Your task to perform on an android device: turn notification dots on Image 0: 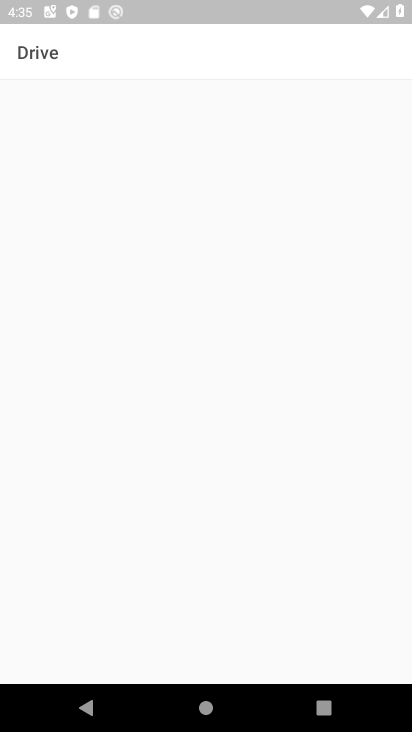
Step 0: drag from (260, 683) to (145, 101)
Your task to perform on an android device: turn notification dots on Image 1: 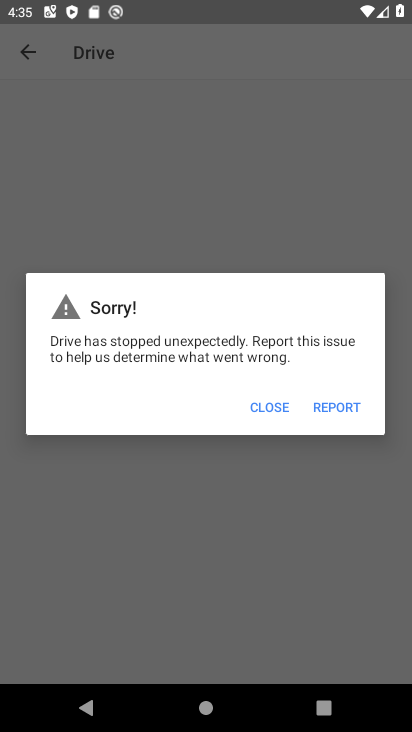
Step 1: click (286, 410)
Your task to perform on an android device: turn notification dots on Image 2: 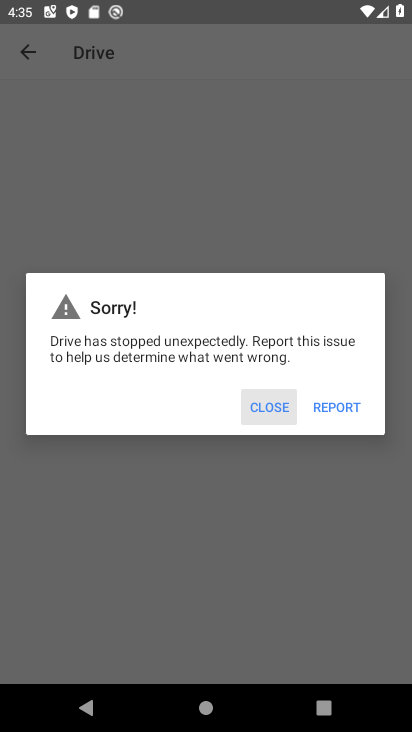
Step 2: click (263, 418)
Your task to perform on an android device: turn notification dots on Image 3: 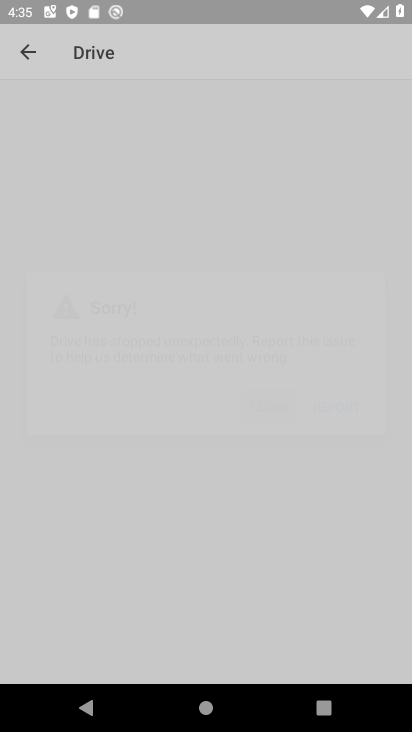
Step 3: click (266, 428)
Your task to perform on an android device: turn notification dots on Image 4: 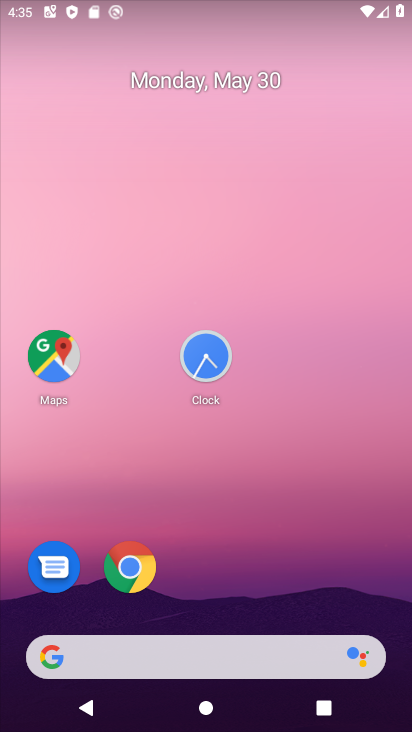
Step 4: click (100, 70)
Your task to perform on an android device: turn notification dots on Image 5: 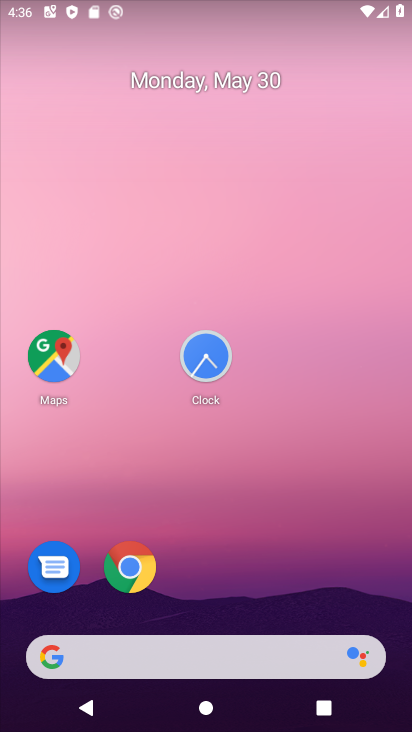
Step 5: drag from (276, 667) to (178, 87)
Your task to perform on an android device: turn notification dots on Image 6: 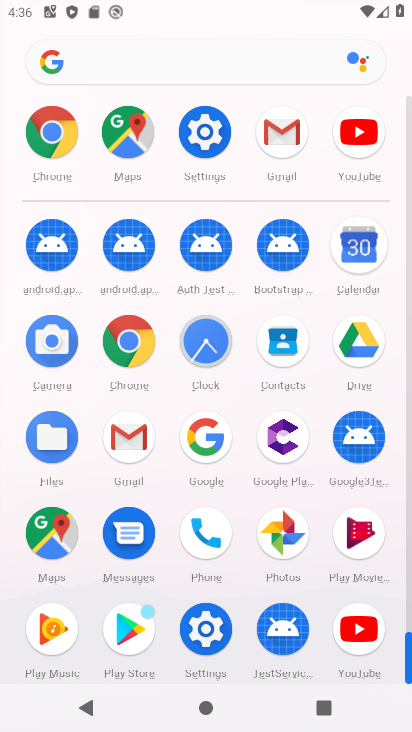
Step 6: drag from (253, 542) to (194, 100)
Your task to perform on an android device: turn notification dots on Image 7: 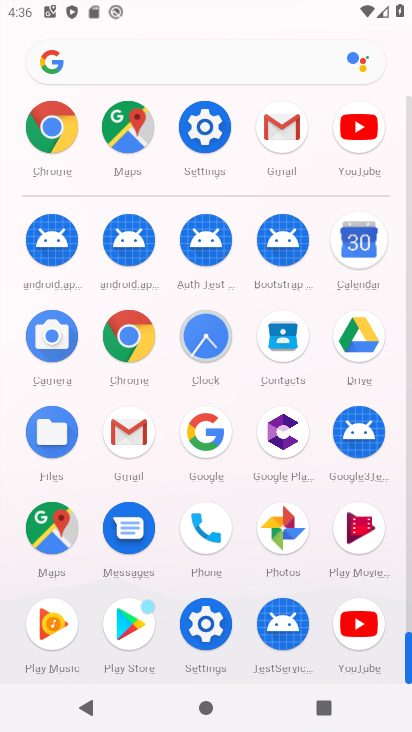
Step 7: click (216, 632)
Your task to perform on an android device: turn notification dots on Image 8: 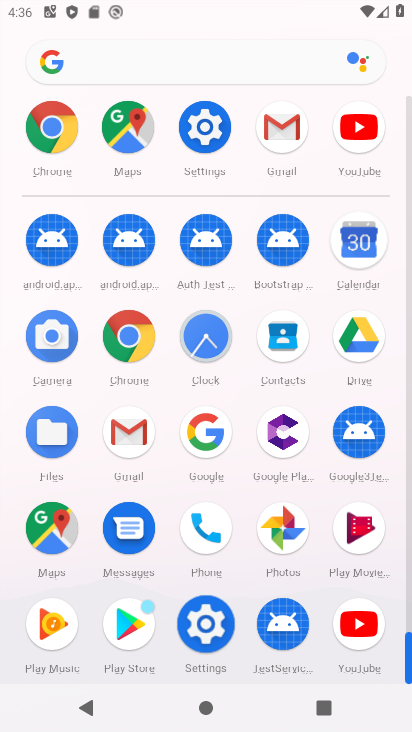
Step 8: click (212, 627)
Your task to perform on an android device: turn notification dots on Image 9: 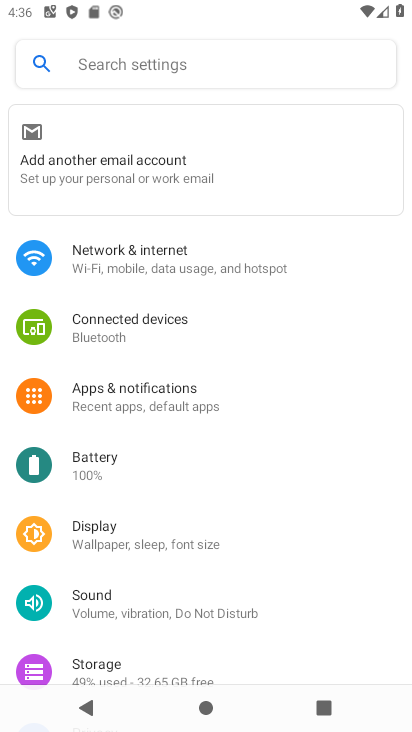
Step 9: click (214, 633)
Your task to perform on an android device: turn notification dots on Image 10: 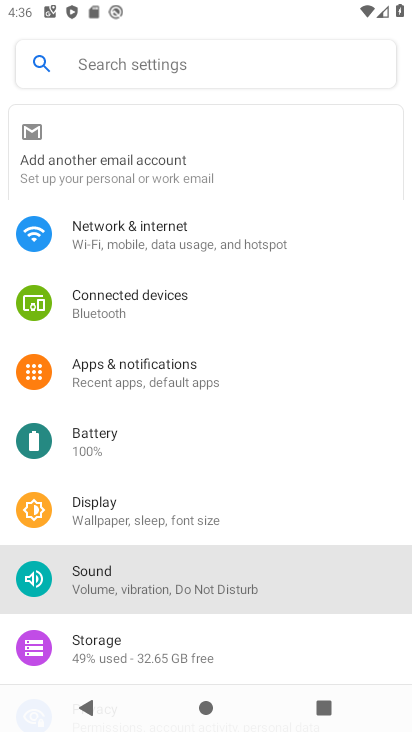
Step 10: click (210, 633)
Your task to perform on an android device: turn notification dots on Image 11: 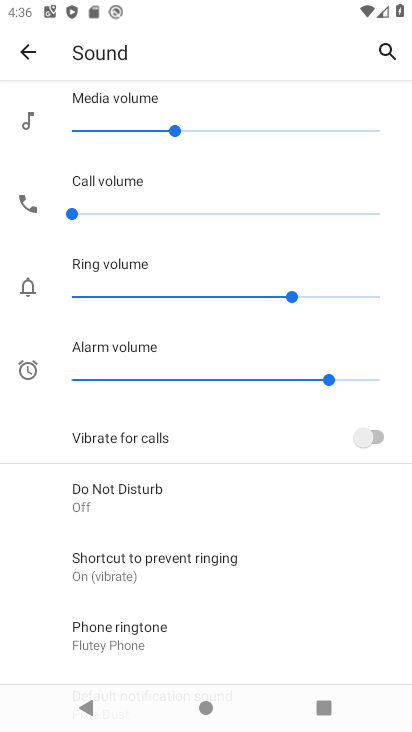
Step 11: click (24, 56)
Your task to perform on an android device: turn notification dots on Image 12: 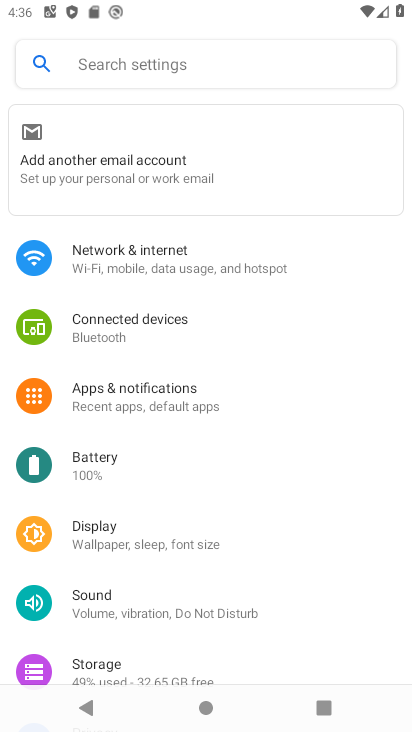
Step 12: click (136, 402)
Your task to perform on an android device: turn notification dots on Image 13: 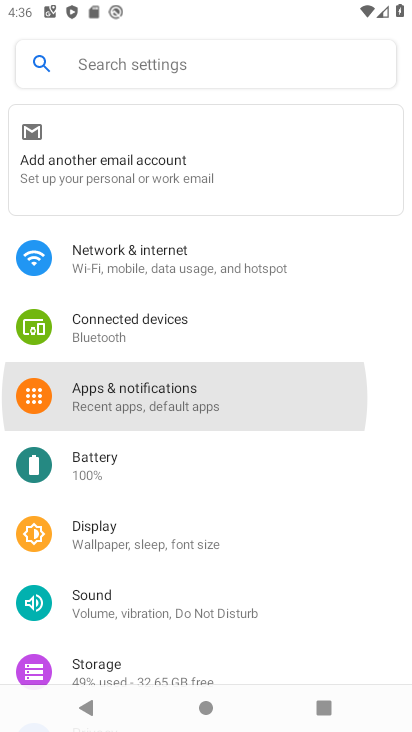
Step 13: click (135, 402)
Your task to perform on an android device: turn notification dots on Image 14: 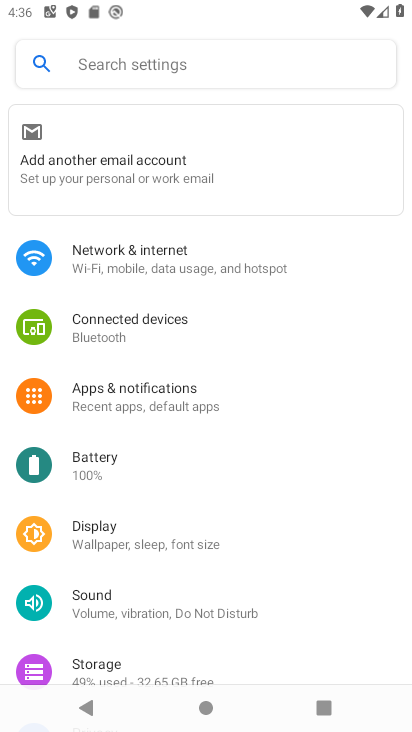
Step 14: click (132, 397)
Your task to perform on an android device: turn notification dots on Image 15: 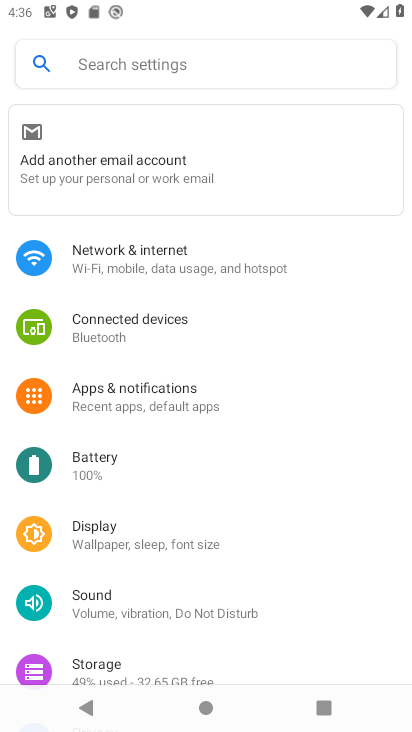
Step 15: click (118, 437)
Your task to perform on an android device: turn notification dots on Image 16: 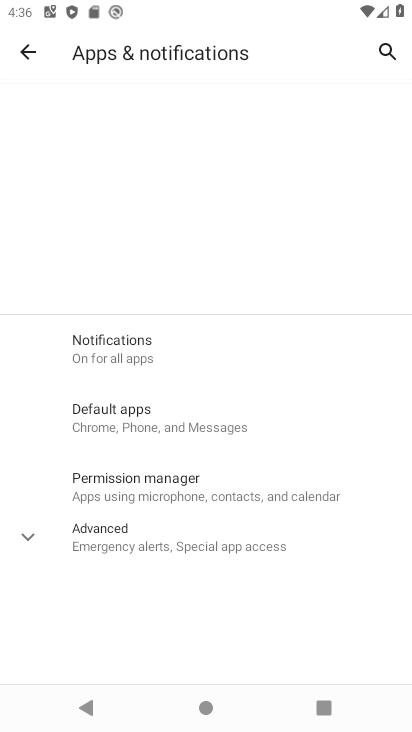
Step 16: click (148, 395)
Your task to perform on an android device: turn notification dots on Image 17: 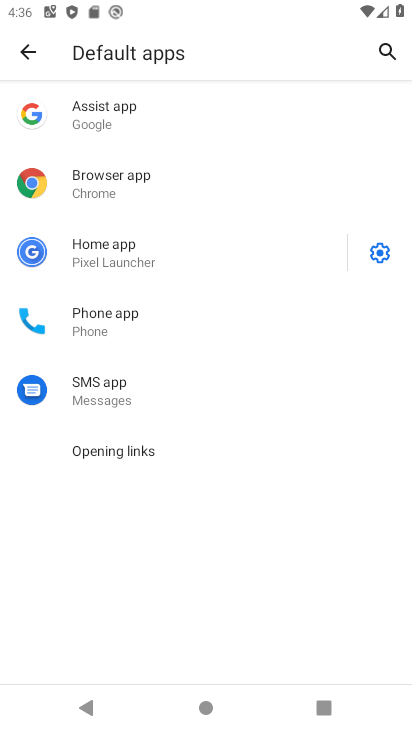
Step 17: click (29, 50)
Your task to perform on an android device: turn notification dots on Image 18: 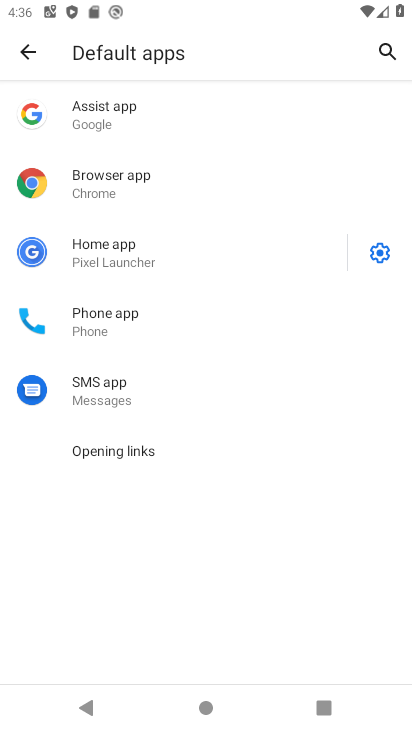
Step 18: click (29, 50)
Your task to perform on an android device: turn notification dots on Image 19: 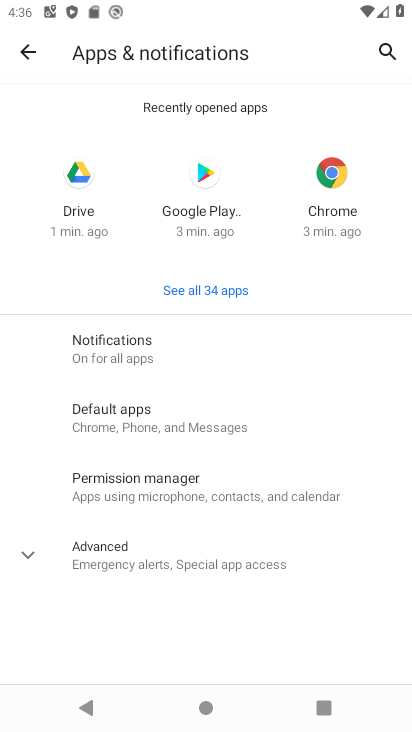
Step 19: click (104, 353)
Your task to perform on an android device: turn notification dots on Image 20: 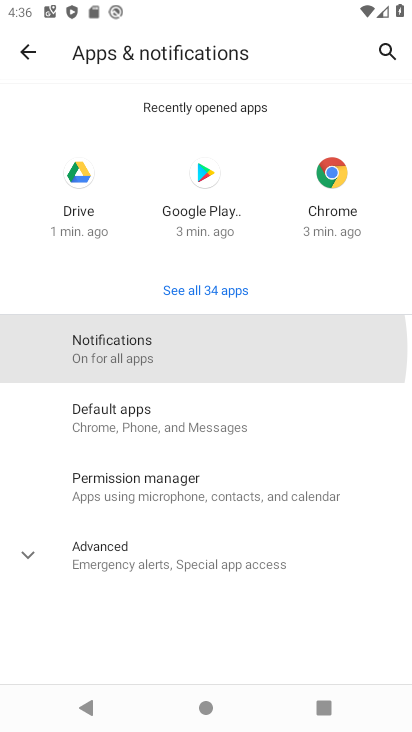
Step 20: click (105, 352)
Your task to perform on an android device: turn notification dots on Image 21: 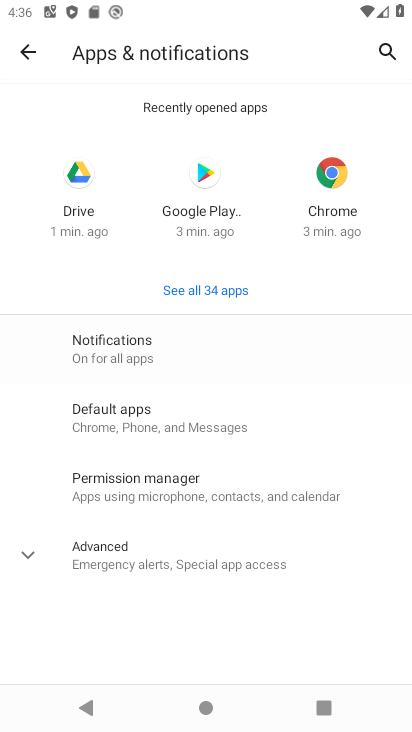
Step 21: click (103, 357)
Your task to perform on an android device: turn notification dots on Image 22: 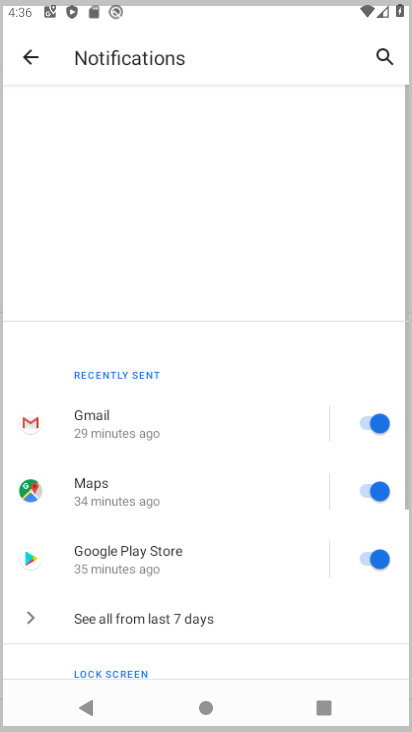
Step 22: click (103, 357)
Your task to perform on an android device: turn notification dots on Image 23: 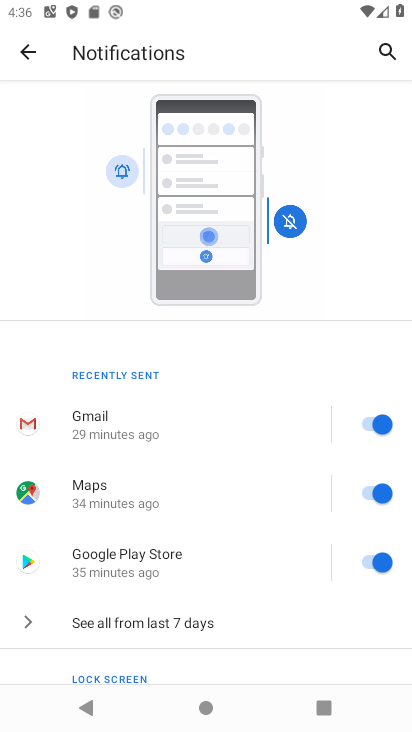
Step 23: drag from (164, 550) to (129, 210)
Your task to perform on an android device: turn notification dots on Image 24: 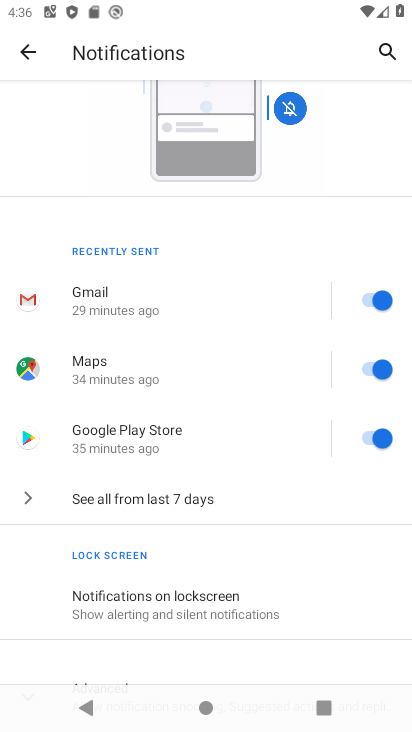
Step 24: click (153, 594)
Your task to perform on an android device: turn notification dots on Image 25: 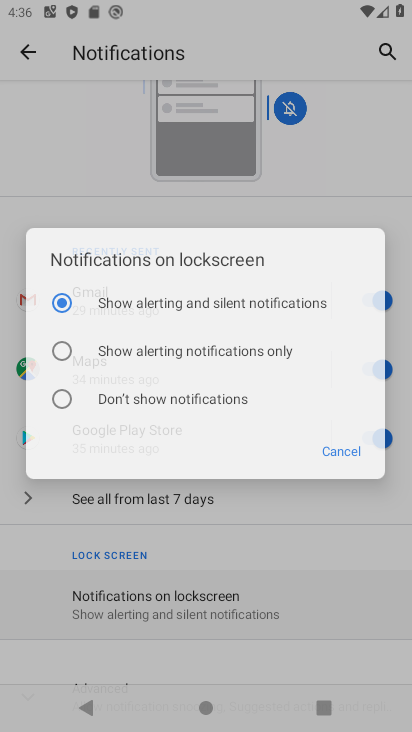
Step 25: drag from (152, 593) to (61, 100)
Your task to perform on an android device: turn notification dots on Image 26: 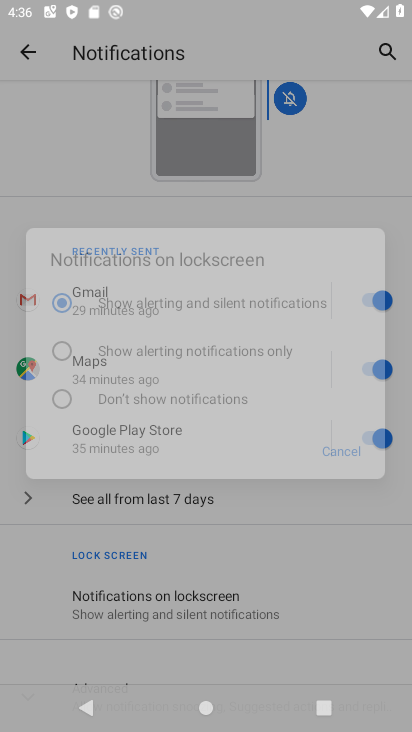
Step 26: drag from (121, 494) to (54, 82)
Your task to perform on an android device: turn notification dots on Image 27: 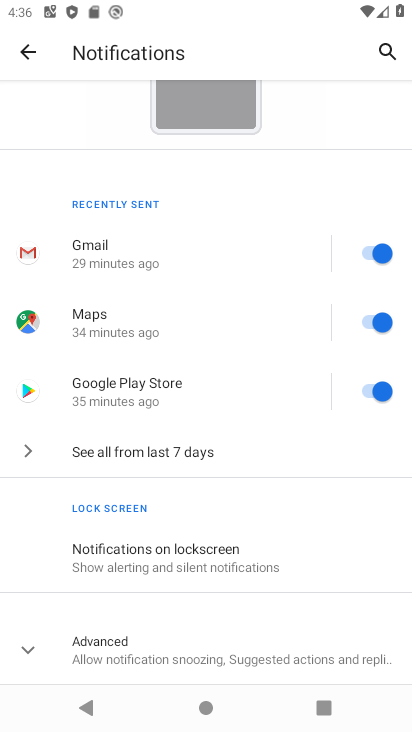
Step 27: click (125, 655)
Your task to perform on an android device: turn notification dots on Image 28: 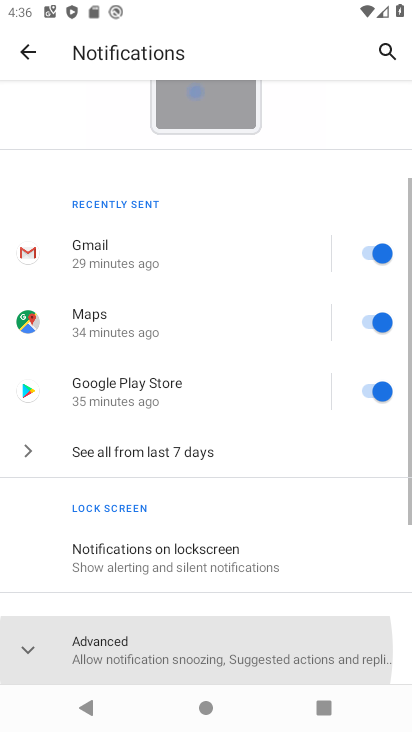
Step 28: click (124, 656)
Your task to perform on an android device: turn notification dots on Image 29: 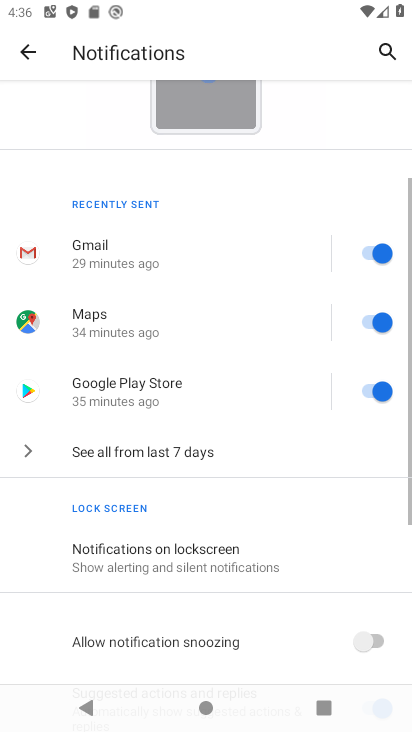
Step 29: click (123, 656)
Your task to perform on an android device: turn notification dots on Image 30: 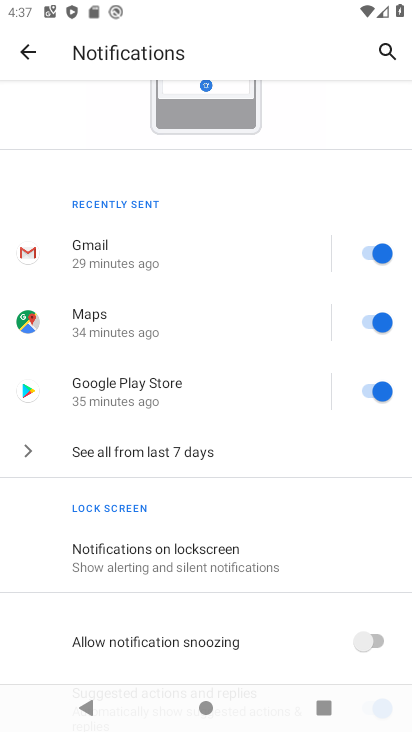
Step 30: drag from (219, 519) to (149, 117)
Your task to perform on an android device: turn notification dots on Image 31: 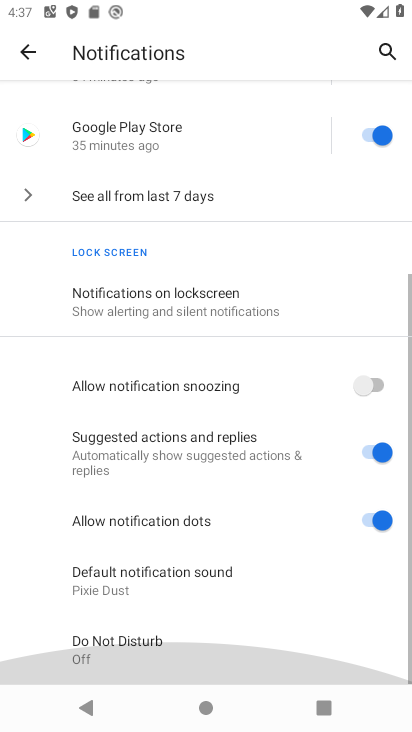
Step 31: drag from (194, 479) to (105, 67)
Your task to perform on an android device: turn notification dots on Image 32: 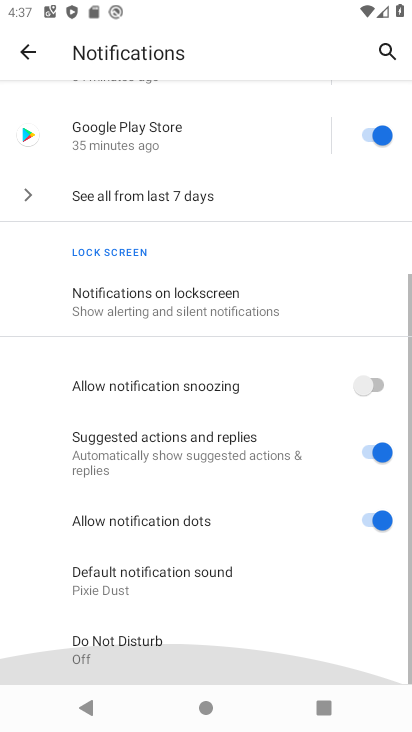
Step 32: drag from (177, 236) to (169, 8)
Your task to perform on an android device: turn notification dots on Image 33: 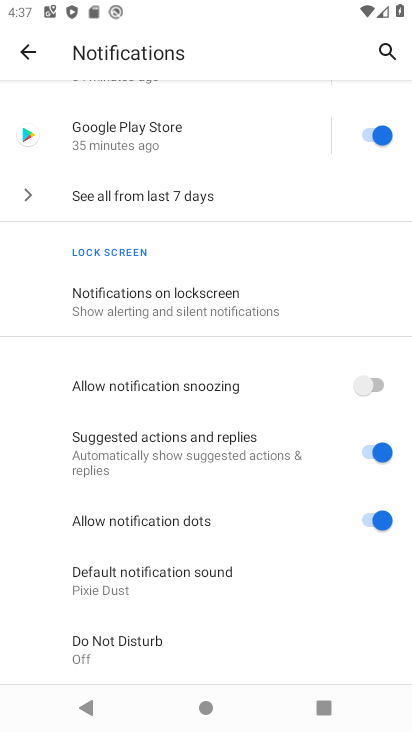
Step 33: click (372, 524)
Your task to perform on an android device: turn notification dots on Image 34: 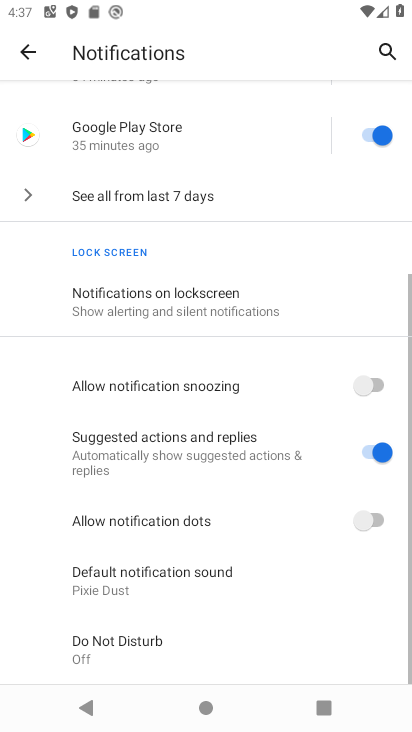
Step 34: click (368, 518)
Your task to perform on an android device: turn notification dots on Image 35: 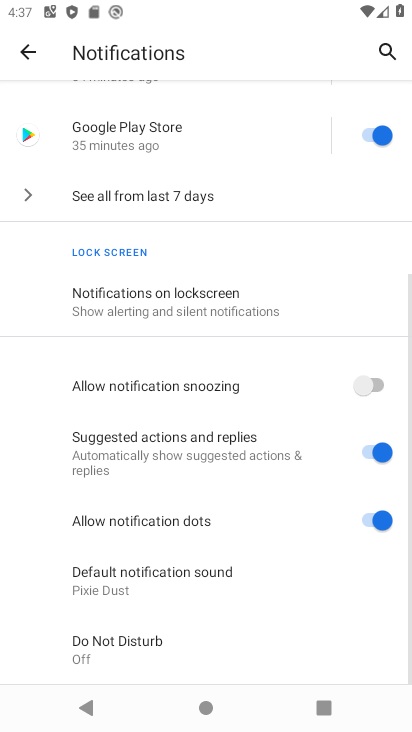
Step 35: task complete